Your task to perform on an android device: Open the stopwatch Image 0: 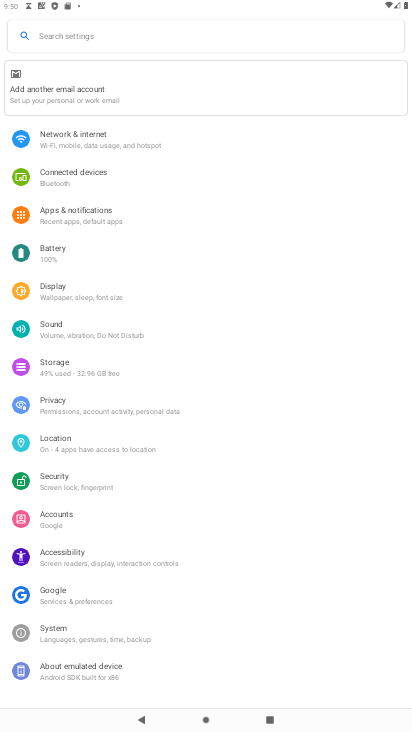
Step 0: press home button
Your task to perform on an android device: Open the stopwatch Image 1: 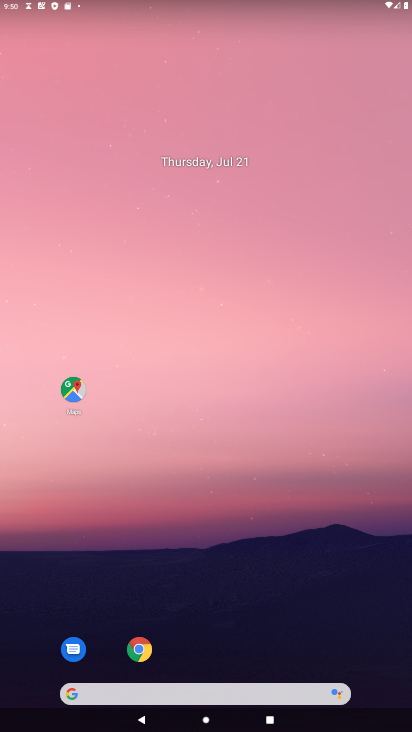
Step 1: drag from (304, 541) to (284, 162)
Your task to perform on an android device: Open the stopwatch Image 2: 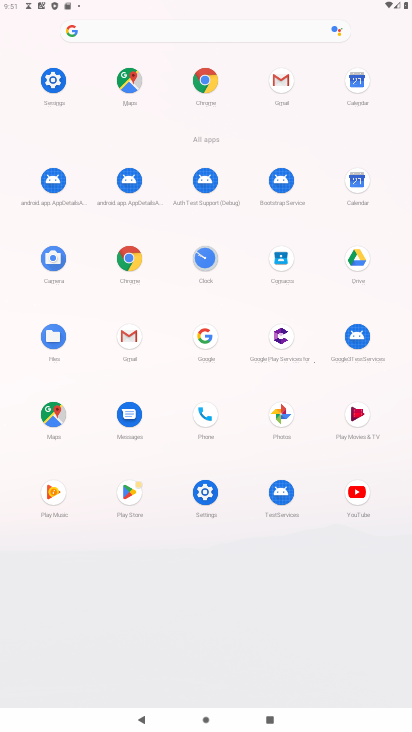
Step 2: click (205, 266)
Your task to perform on an android device: Open the stopwatch Image 3: 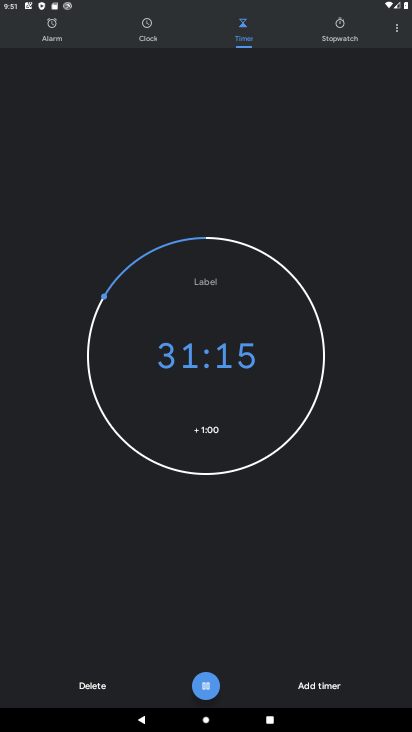
Step 3: click (329, 40)
Your task to perform on an android device: Open the stopwatch Image 4: 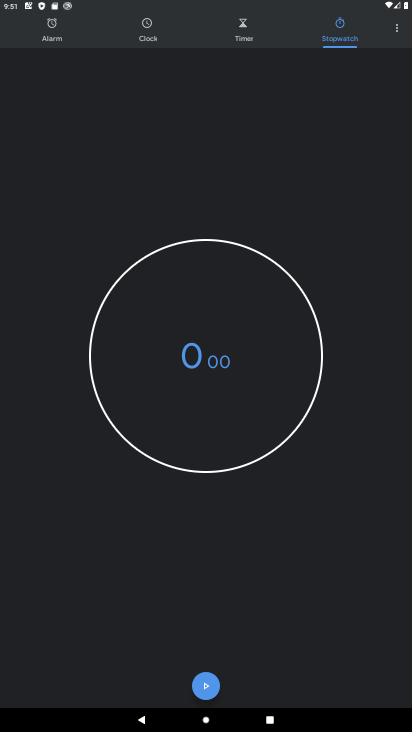
Step 4: task complete